Your task to perform on an android device: Open Chrome and go to settings Image 0: 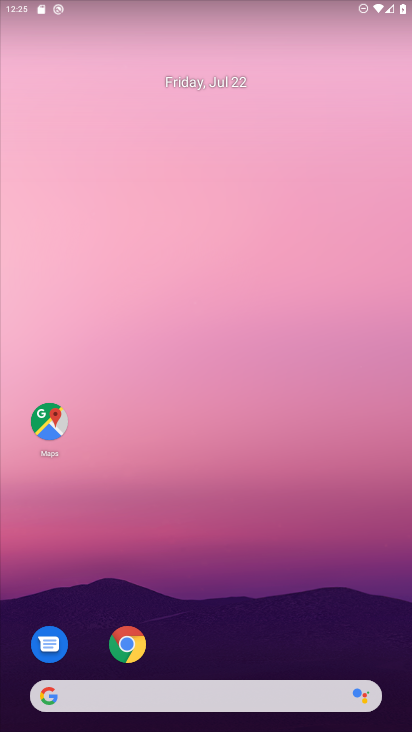
Step 0: click (118, 648)
Your task to perform on an android device: Open Chrome and go to settings Image 1: 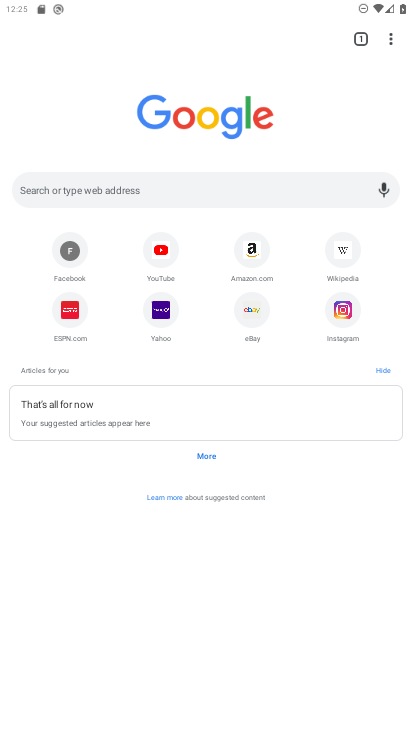
Step 1: click (396, 33)
Your task to perform on an android device: Open Chrome and go to settings Image 2: 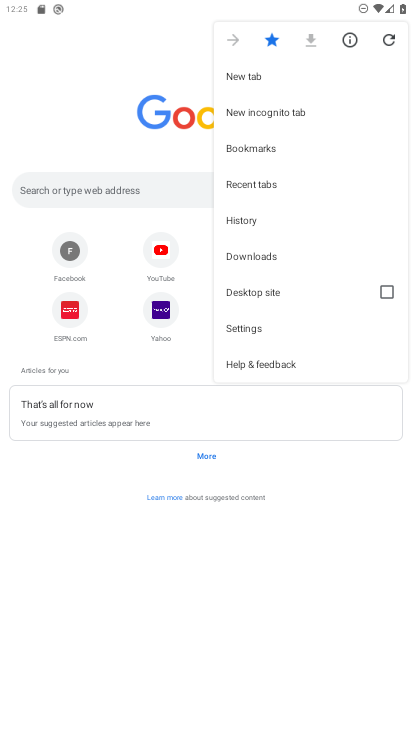
Step 2: click (248, 345)
Your task to perform on an android device: Open Chrome and go to settings Image 3: 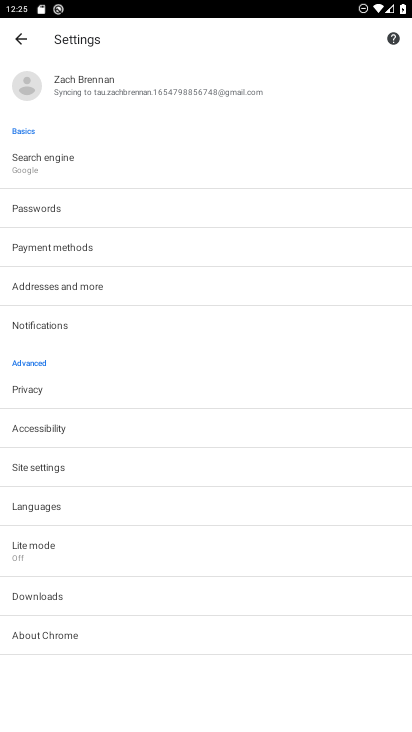
Step 3: task complete